Your task to perform on an android device: Do I have any events tomorrow? Image 0: 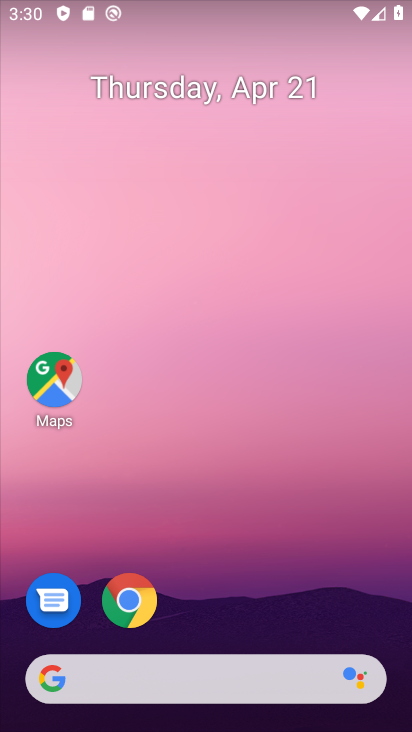
Step 0: drag from (236, 589) to (264, 27)
Your task to perform on an android device: Do I have any events tomorrow? Image 1: 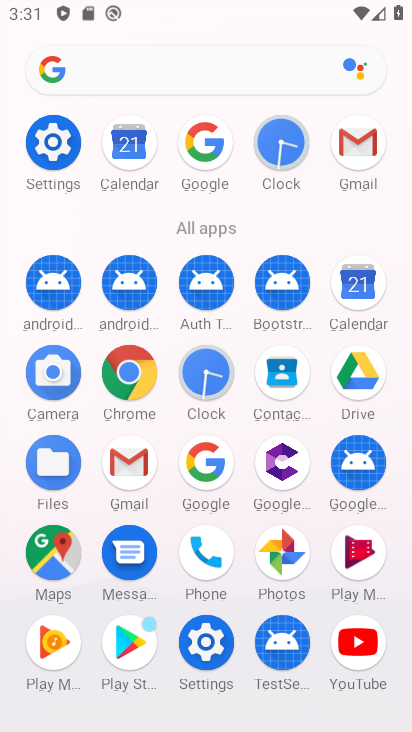
Step 1: click (362, 283)
Your task to perform on an android device: Do I have any events tomorrow? Image 2: 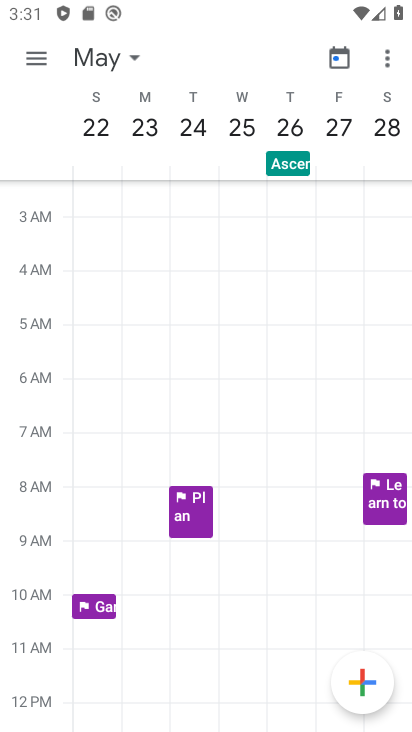
Step 2: click (342, 62)
Your task to perform on an android device: Do I have any events tomorrow? Image 3: 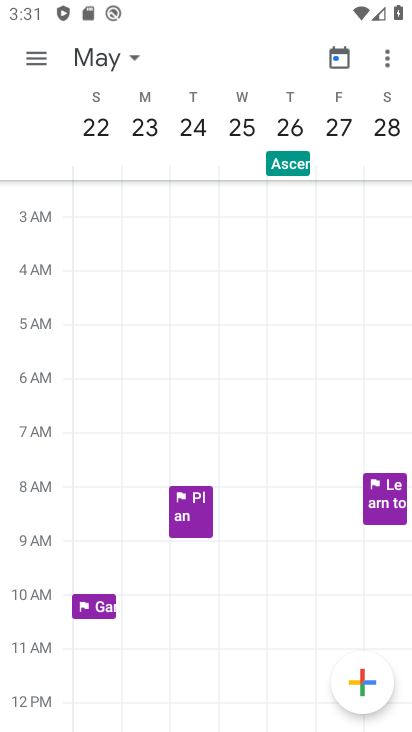
Step 3: click (344, 57)
Your task to perform on an android device: Do I have any events tomorrow? Image 4: 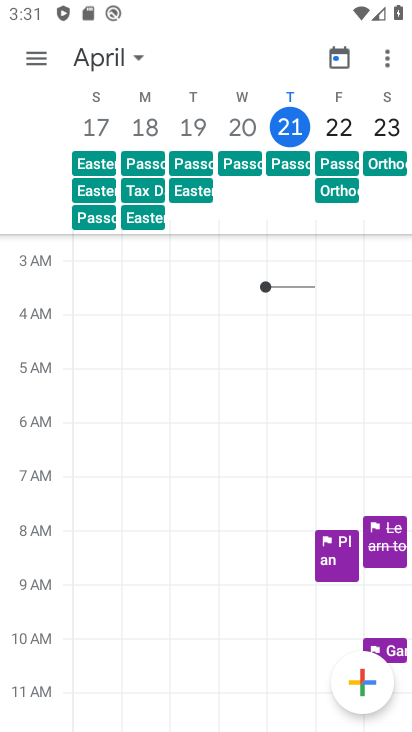
Step 4: click (44, 55)
Your task to perform on an android device: Do I have any events tomorrow? Image 5: 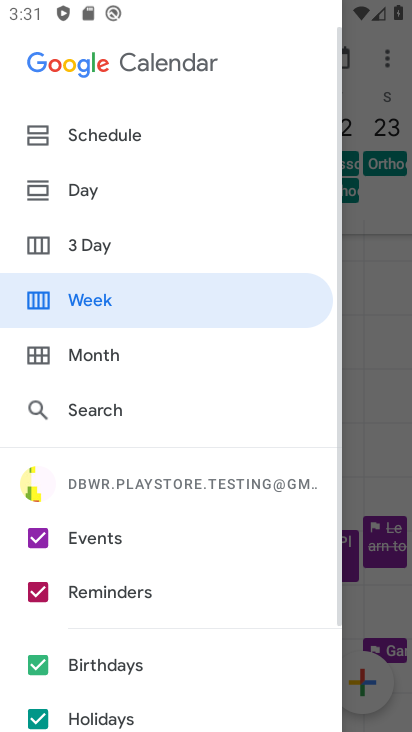
Step 5: click (72, 125)
Your task to perform on an android device: Do I have any events tomorrow? Image 6: 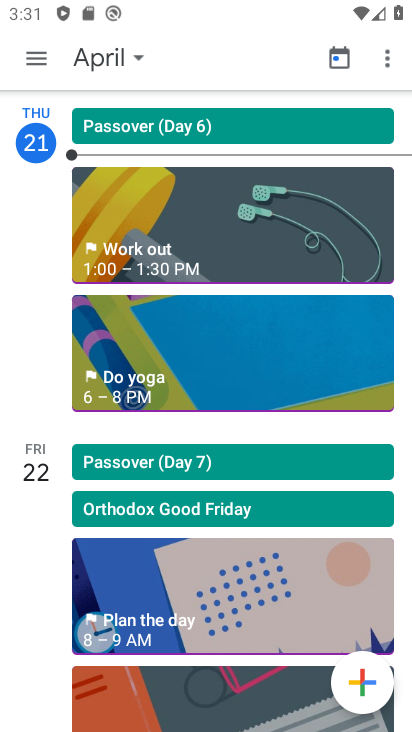
Step 6: click (136, 52)
Your task to perform on an android device: Do I have any events tomorrow? Image 7: 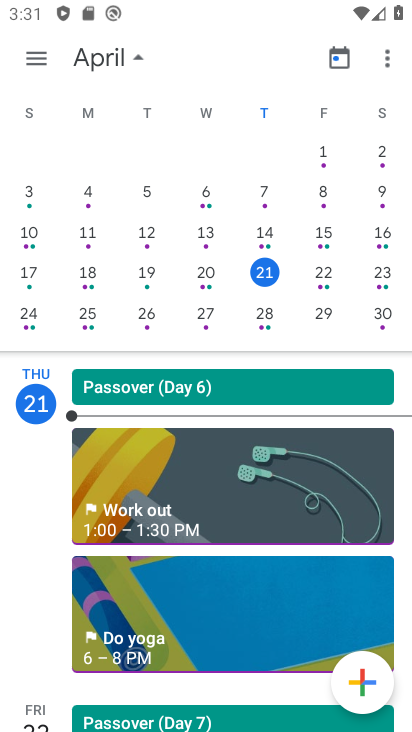
Step 7: click (333, 270)
Your task to perform on an android device: Do I have any events tomorrow? Image 8: 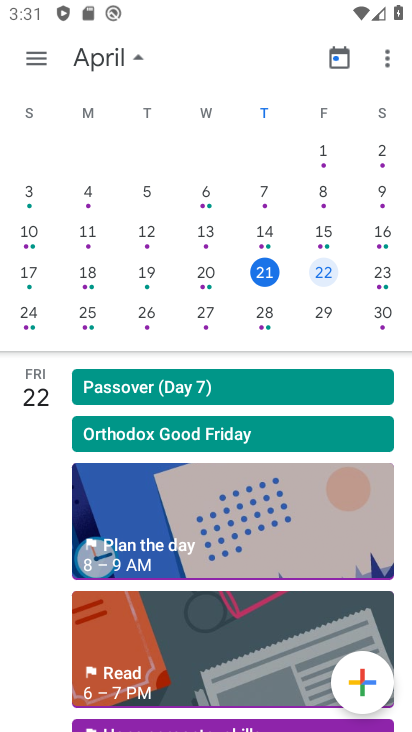
Step 8: click (320, 270)
Your task to perform on an android device: Do I have any events tomorrow? Image 9: 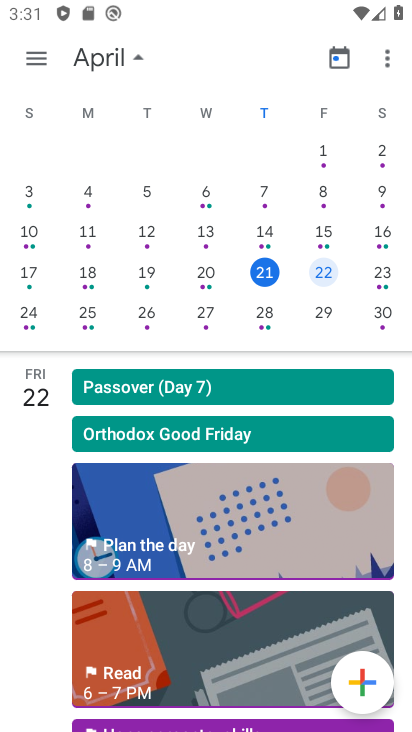
Step 9: task complete